Your task to perform on an android device: set the timer Image 0: 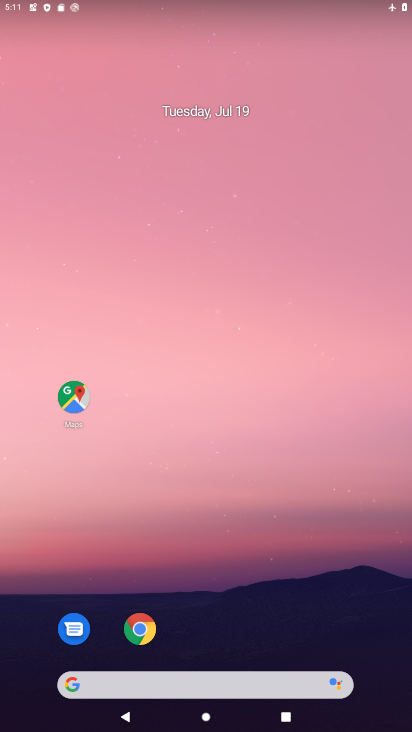
Step 0: press home button
Your task to perform on an android device: set the timer Image 1: 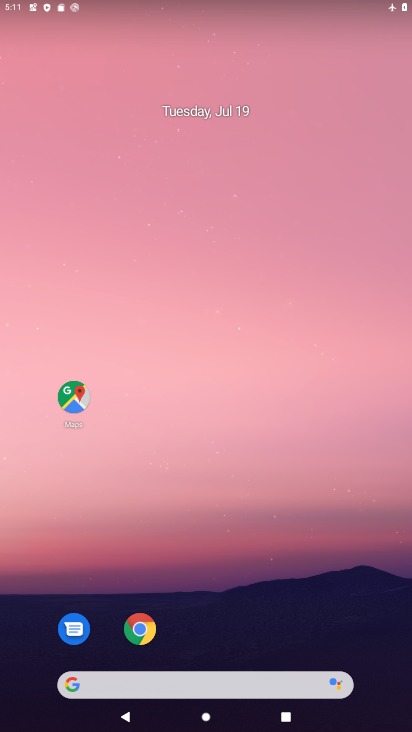
Step 1: drag from (256, 644) to (110, 56)
Your task to perform on an android device: set the timer Image 2: 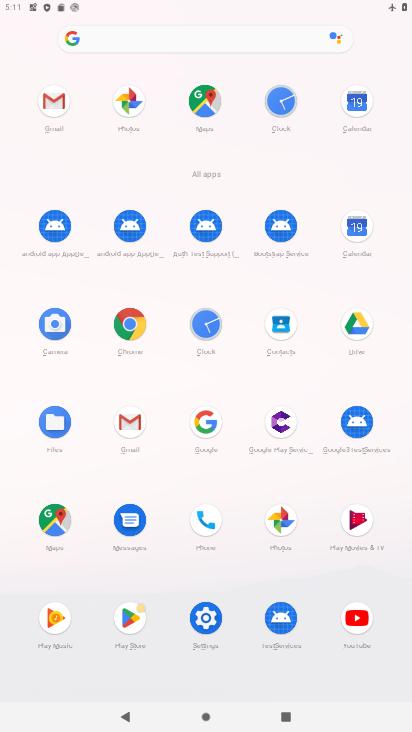
Step 2: click (202, 324)
Your task to perform on an android device: set the timer Image 3: 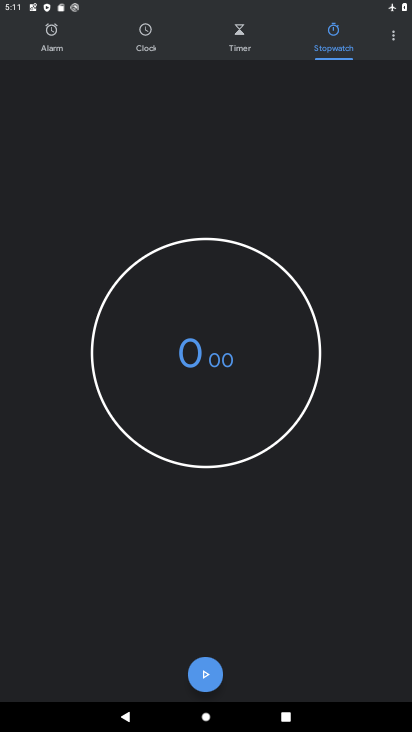
Step 3: click (231, 30)
Your task to perform on an android device: set the timer Image 4: 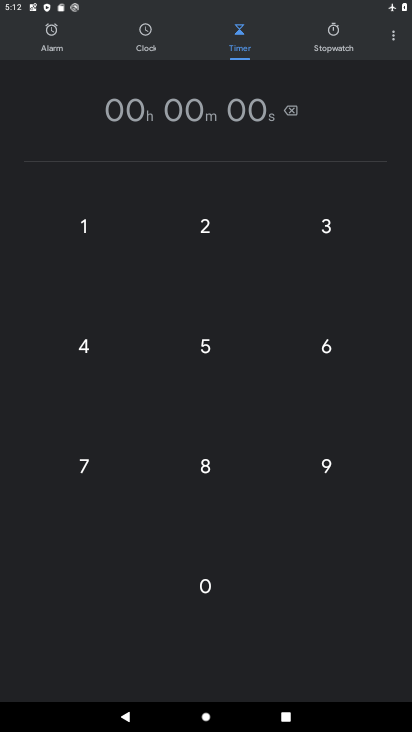
Step 4: click (210, 237)
Your task to perform on an android device: set the timer Image 5: 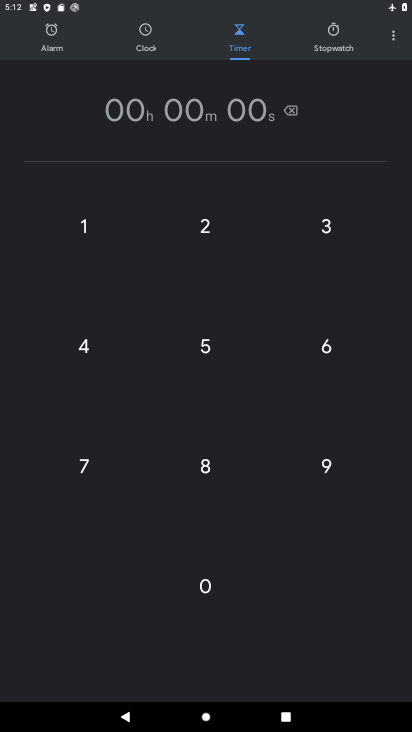
Step 5: click (210, 237)
Your task to perform on an android device: set the timer Image 6: 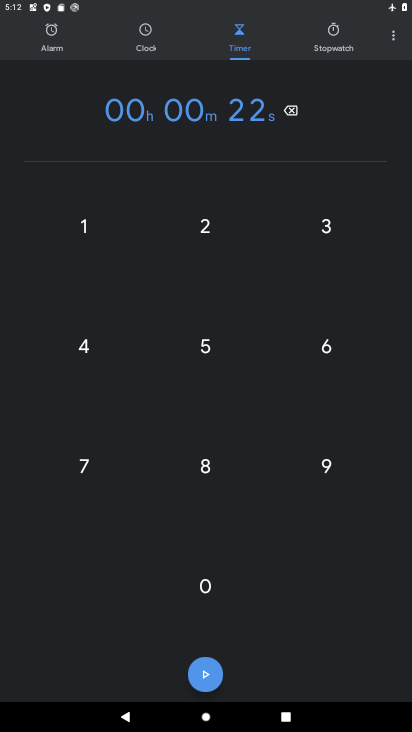
Step 6: click (206, 345)
Your task to perform on an android device: set the timer Image 7: 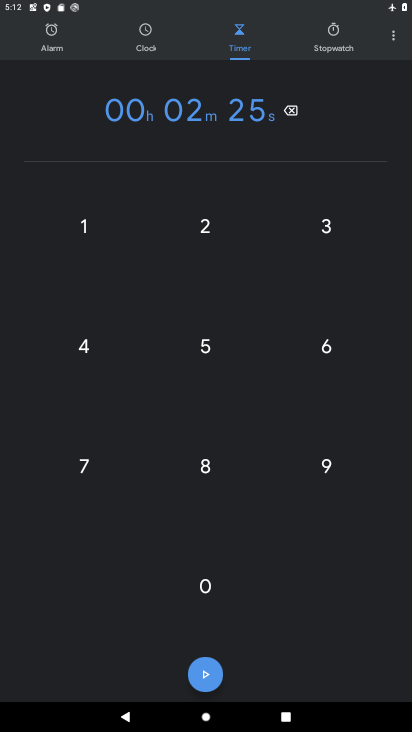
Step 7: click (100, 337)
Your task to perform on an android device: set the timer Image 8: 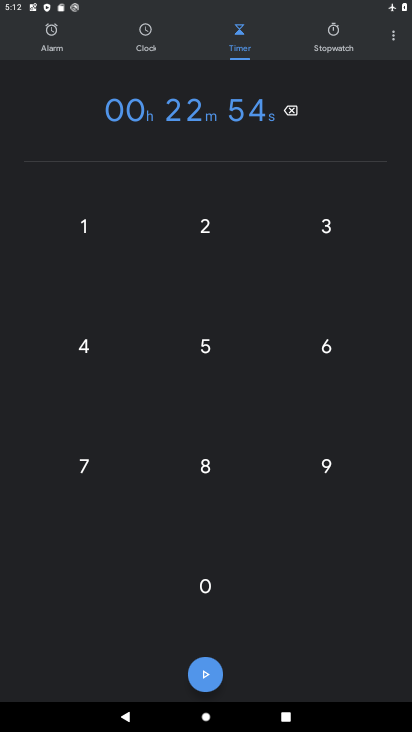
Step 8: click (216, 228)
Your task to perform on an android device: set the timer Image 9: 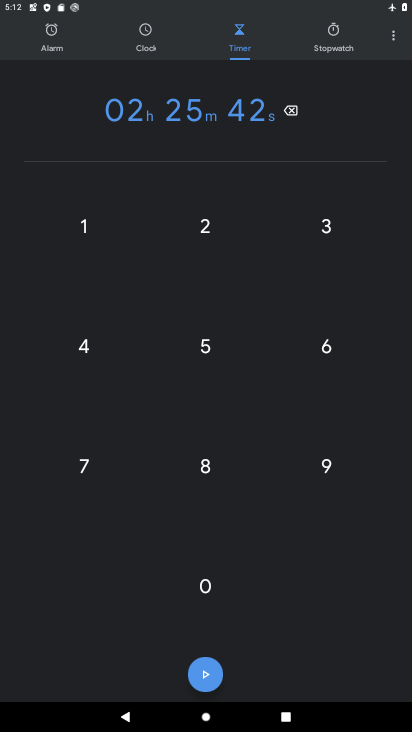
Step 9: click (207, 460)
Your task to perform on an android device: set the timer Image 10: 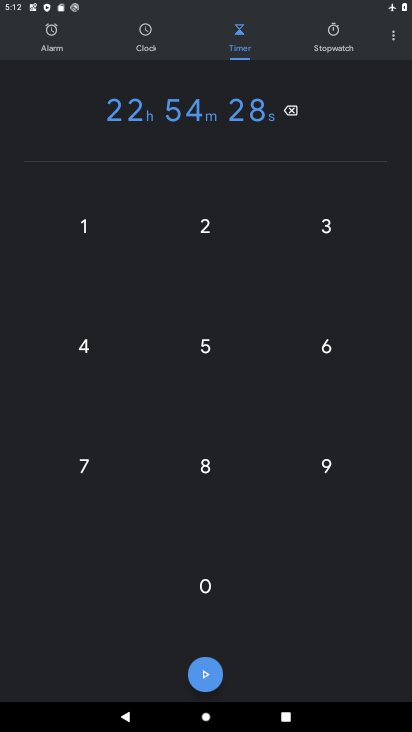
Step 10: click (198, 673)
Your task to perform on an android device: set the timer Image 11: 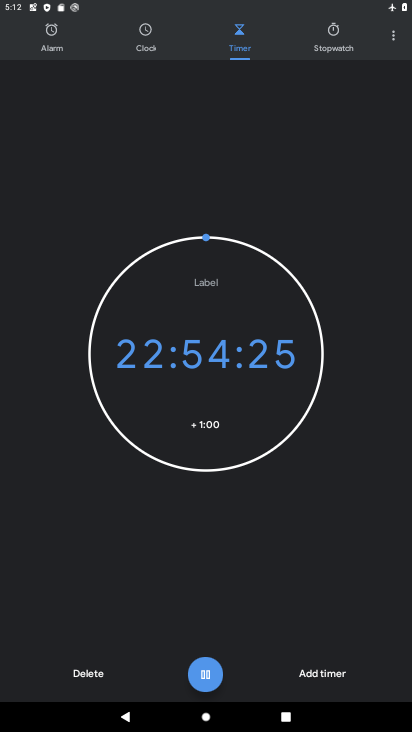
Step 11: task complete